Your task to perform on an android device: Open calendar and show me the second week of next month Image 0: 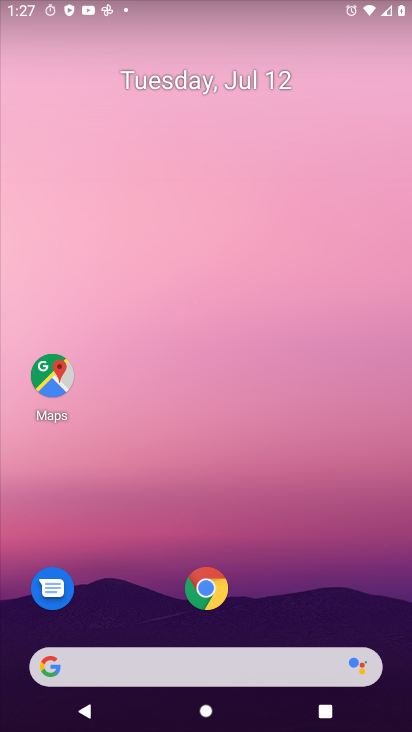
Step 0: drag from (249, 484) to (326, 210)
Your task to perform on an android device: Open calendar and show me the second week of next month Image 1: 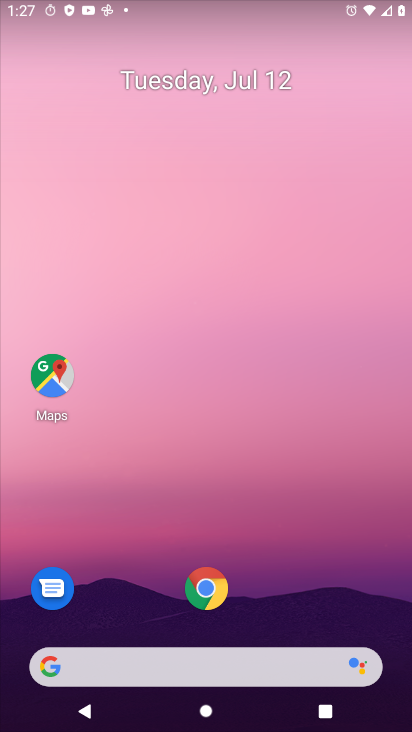
Step 1: drag from (260, 666) to (345, 49)
Your task to perform on an android device: Open calendar and show me the second week of next month Image 2: 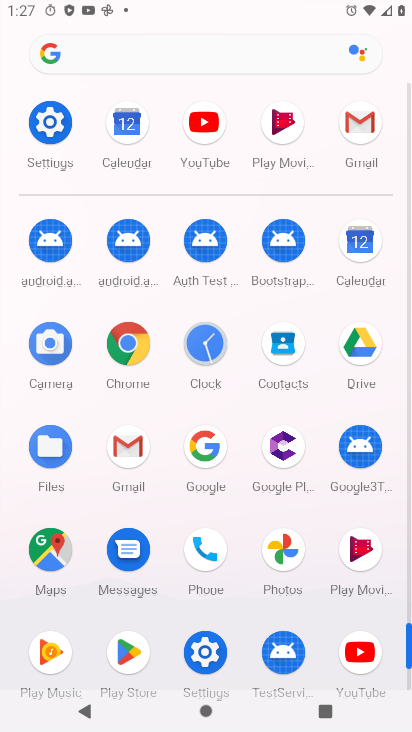
Step 2: click (363, 235)
Your task to perform on an android device: Open calendar and show me the second week of next month Image 3: 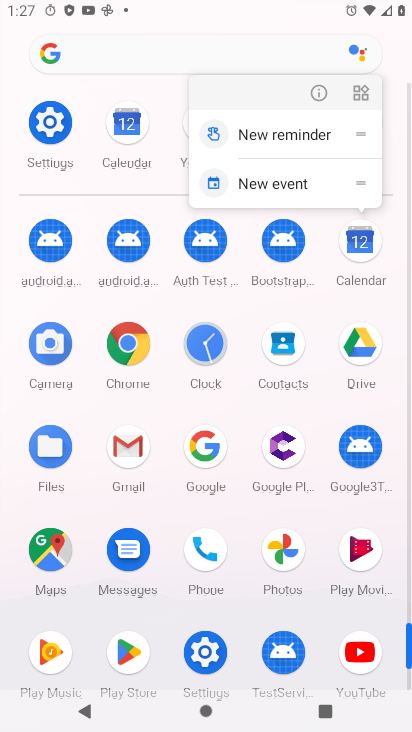
Step 3: click (357, 236)
Your task to perform on an android device: Open calendar and show me the second week of next month Image 4: 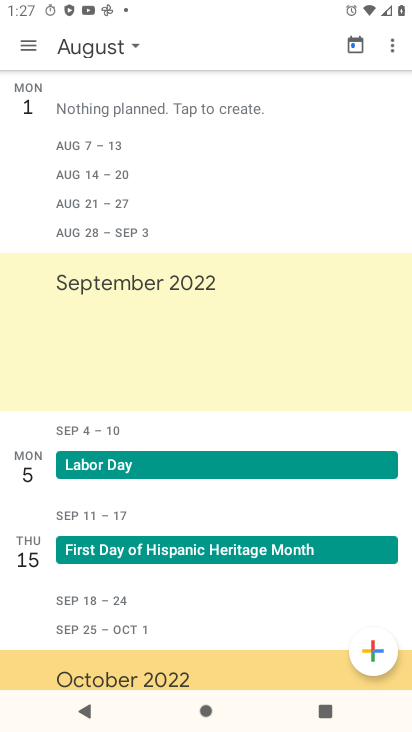
Step 4: click (91, 42)
Your task to perform on an android device: Open calendar and show me the second week of next month Image 5: 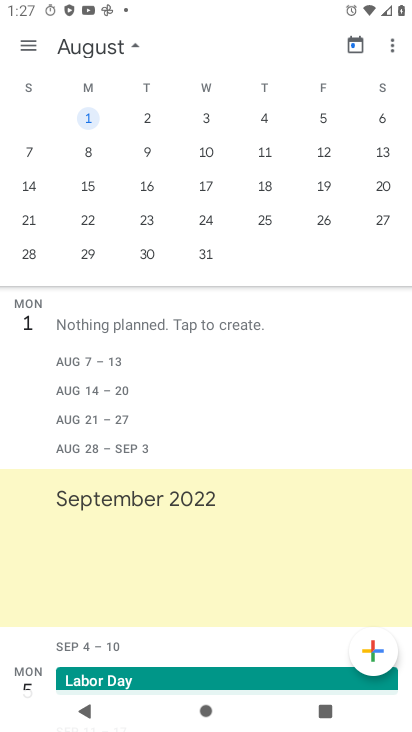
Step 5: click (34, 149)
Your task to perform on an android device: Open calendar and show me the second week of next month Image 6: 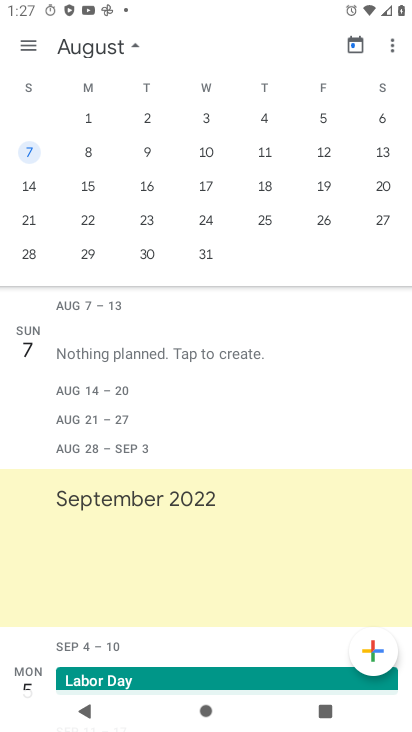
Step 6: click (20, 54)
Your task to perform on an android device: Open calendar and show me the second week of next month Image 7: 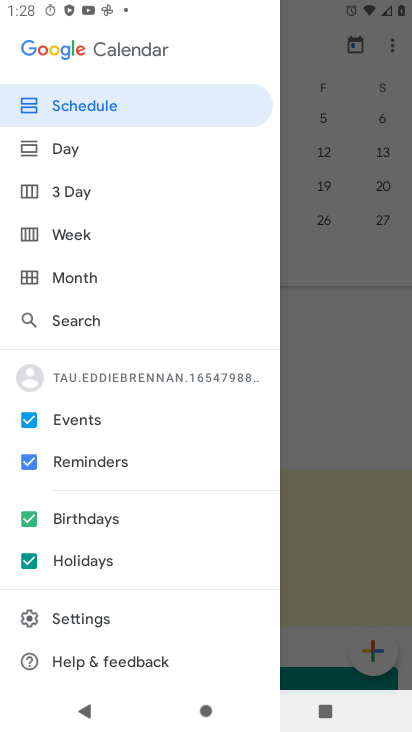
Step 7: click (77, 243)
Your task to perform on an android device: Open calendar and show me the second week of next month Image 8: 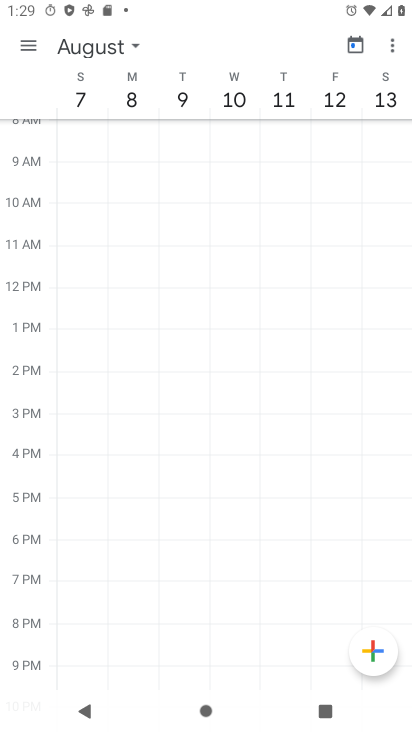
Step 8: task complete